Your task to perform on an android device: open app "Google Drive" Image 0: 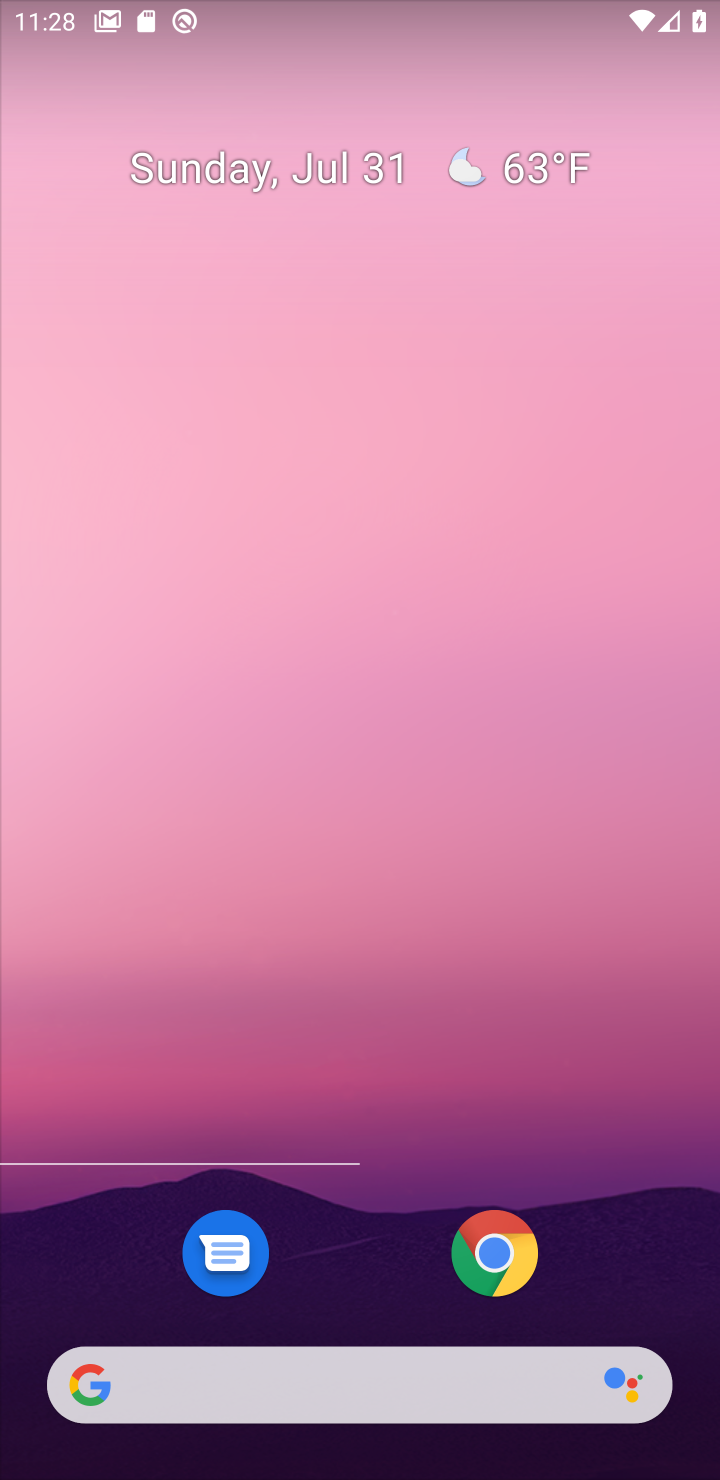
Step 0: press home button
Your task to perform on an android device: open app "Google Drive" Image 1: 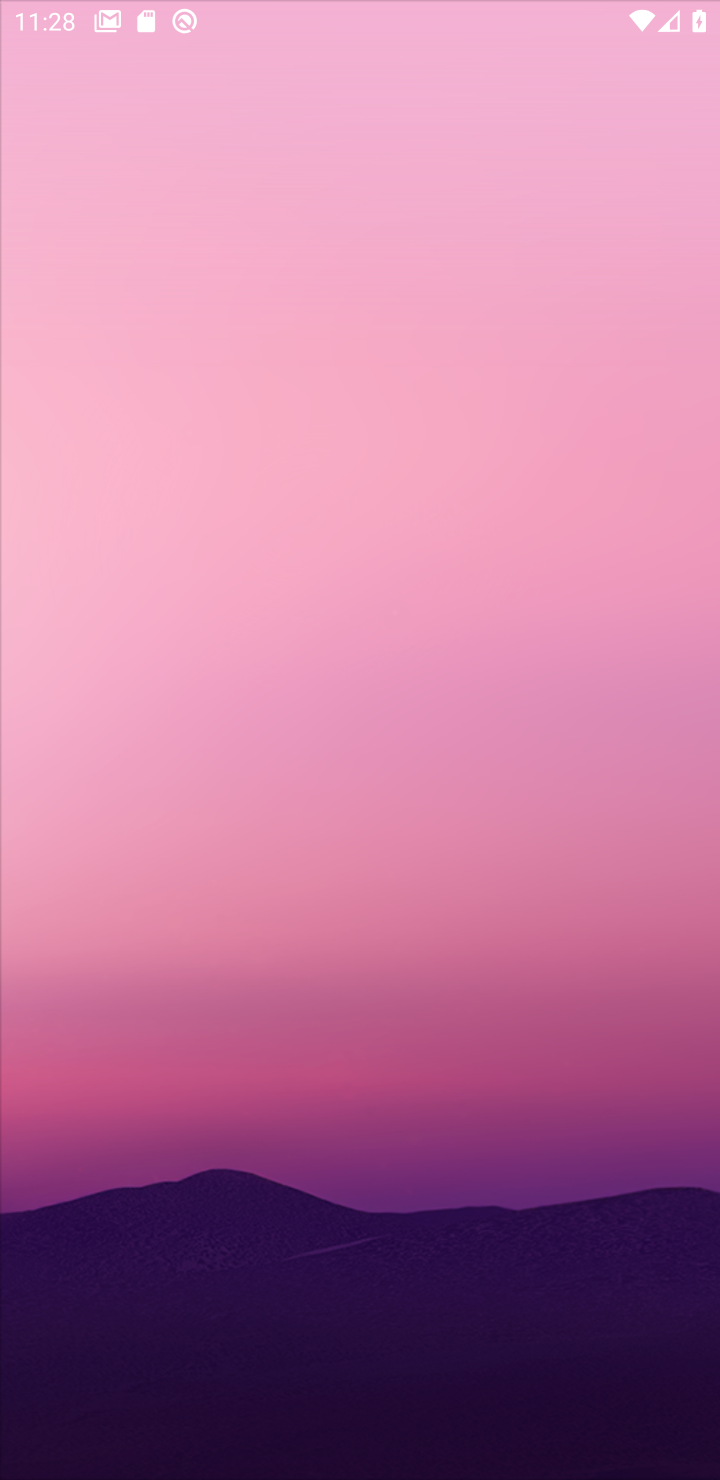
Step 1: drag from (386, 1161) to (474, 6)
Your task to perform on an android device: open app "Google Drive" Image 2: 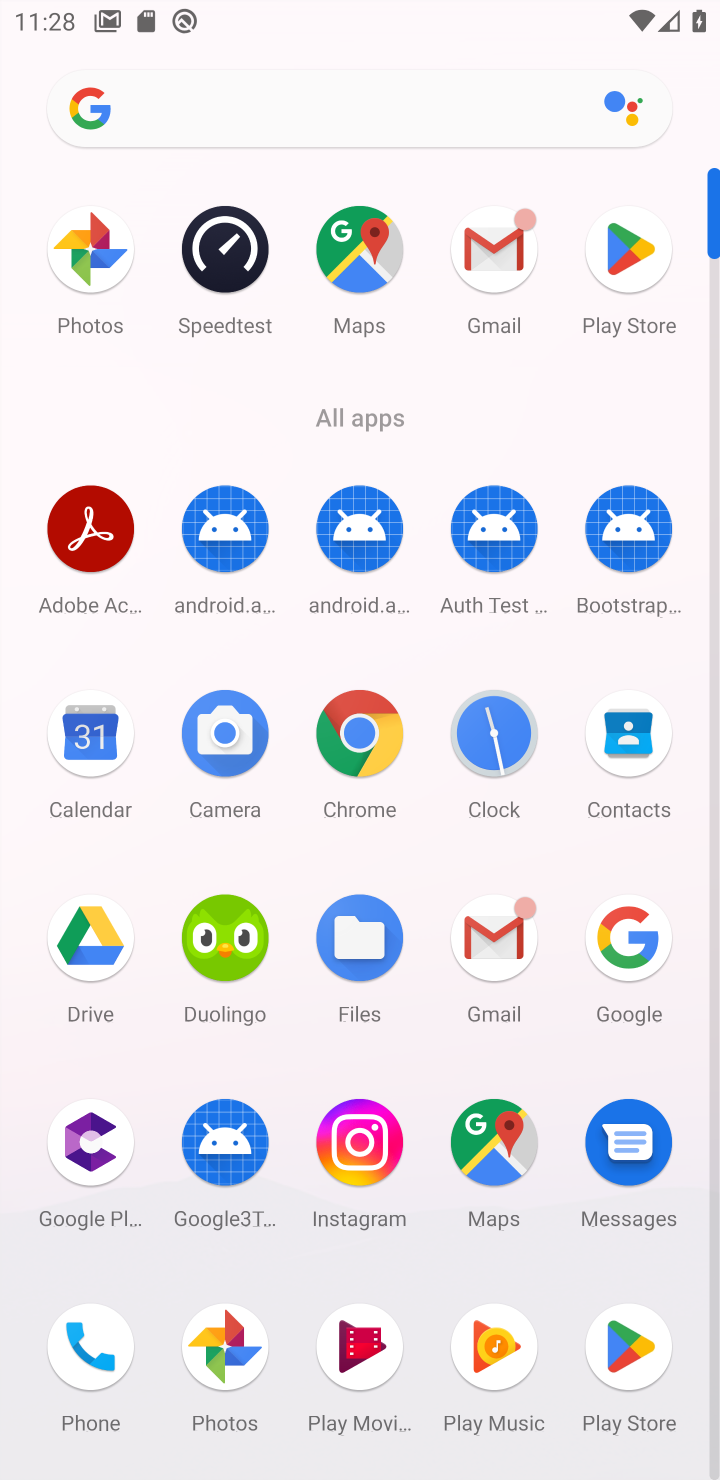
Step 2: click (638, 1340)
Your task to perform on an android device: open app "Google Drive" Image 3: 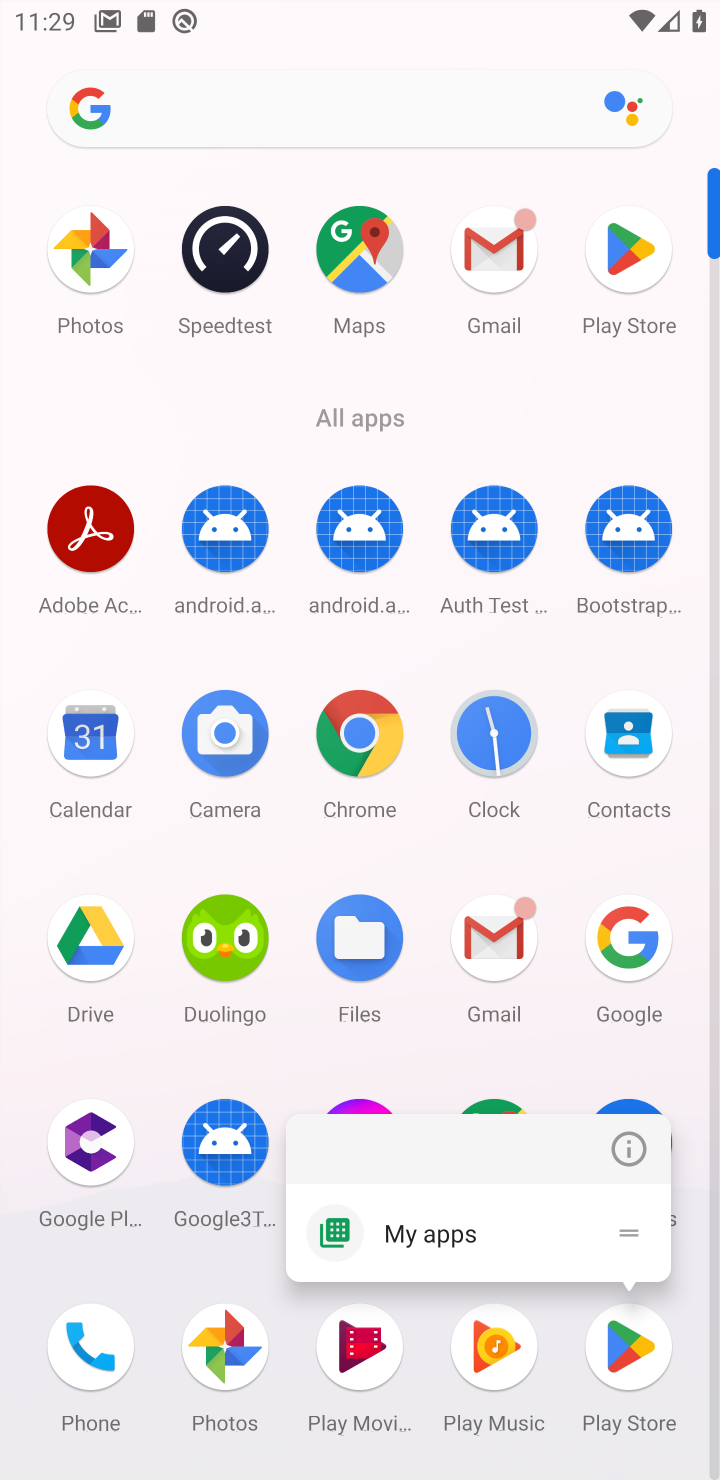
Step 3: click (646, 1326)
Your task to perform on an android device: open app "Google Drive" Image 4: 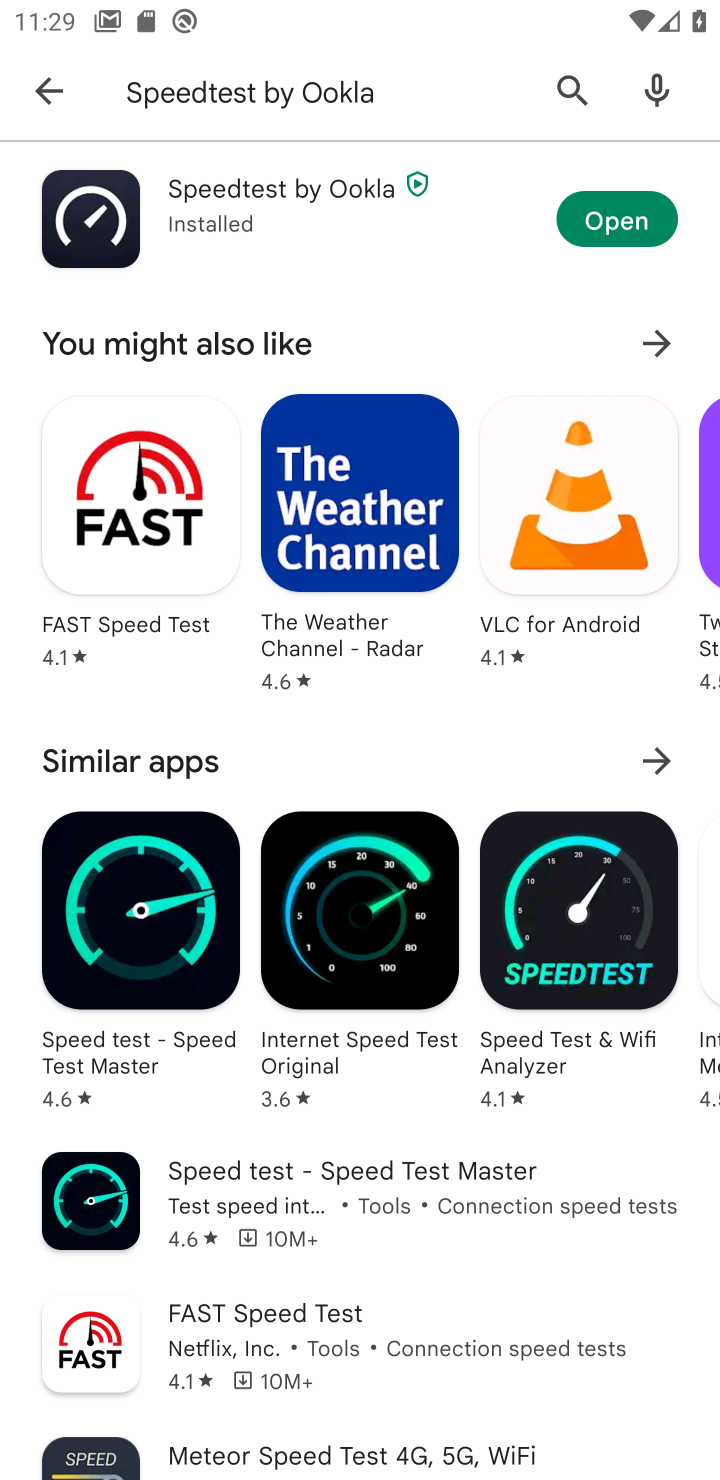
Step 4: click (358, 85)
Your task to perform on an android device: open app "Google Drive" Image 5: 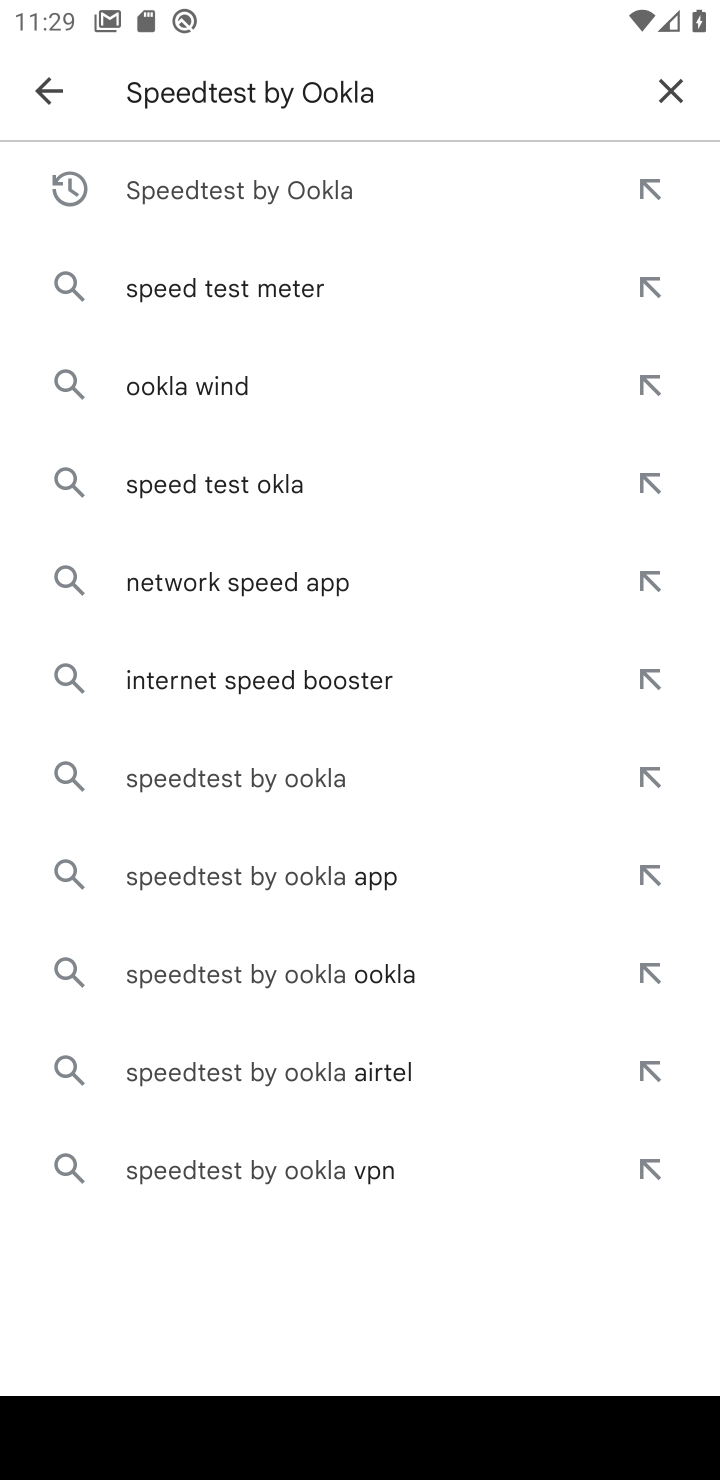
Step 5: click (689, 97)
Your task to perform on an android device: open app "Google Drive" Image 6: 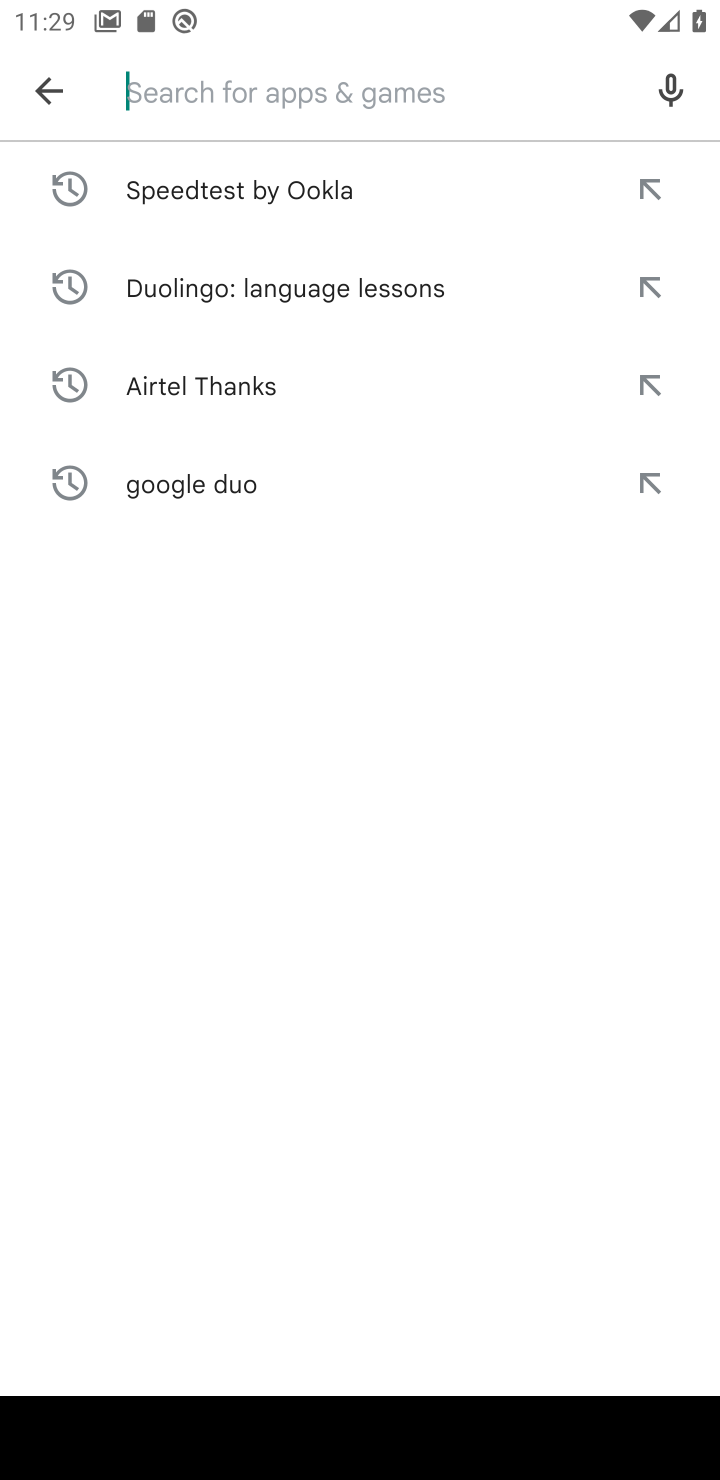
Step 6: type "Google Drive"
Your task to perform on an android device: open app "Google Drive" Image 7: 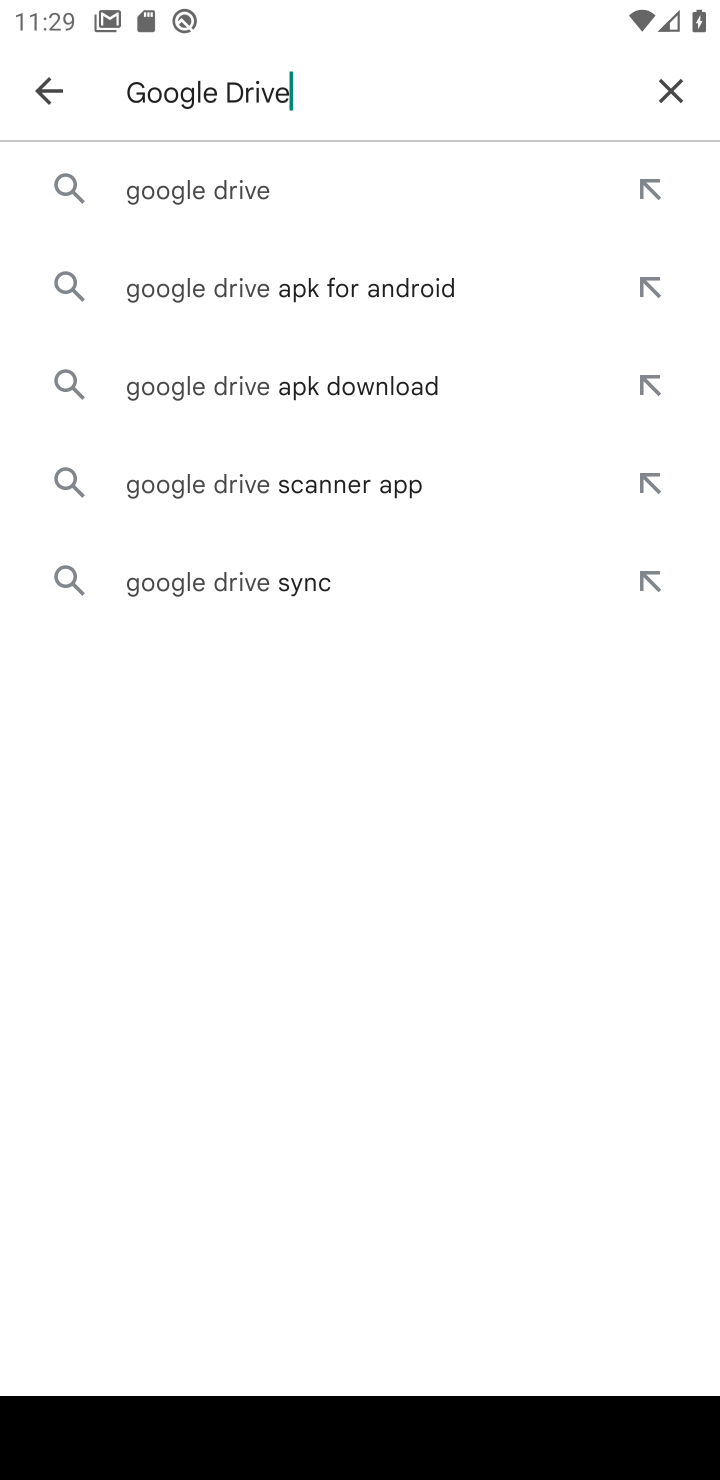
Step 7: press enter
Your task to perform on an android device: open app "Google Drive" Image 8: 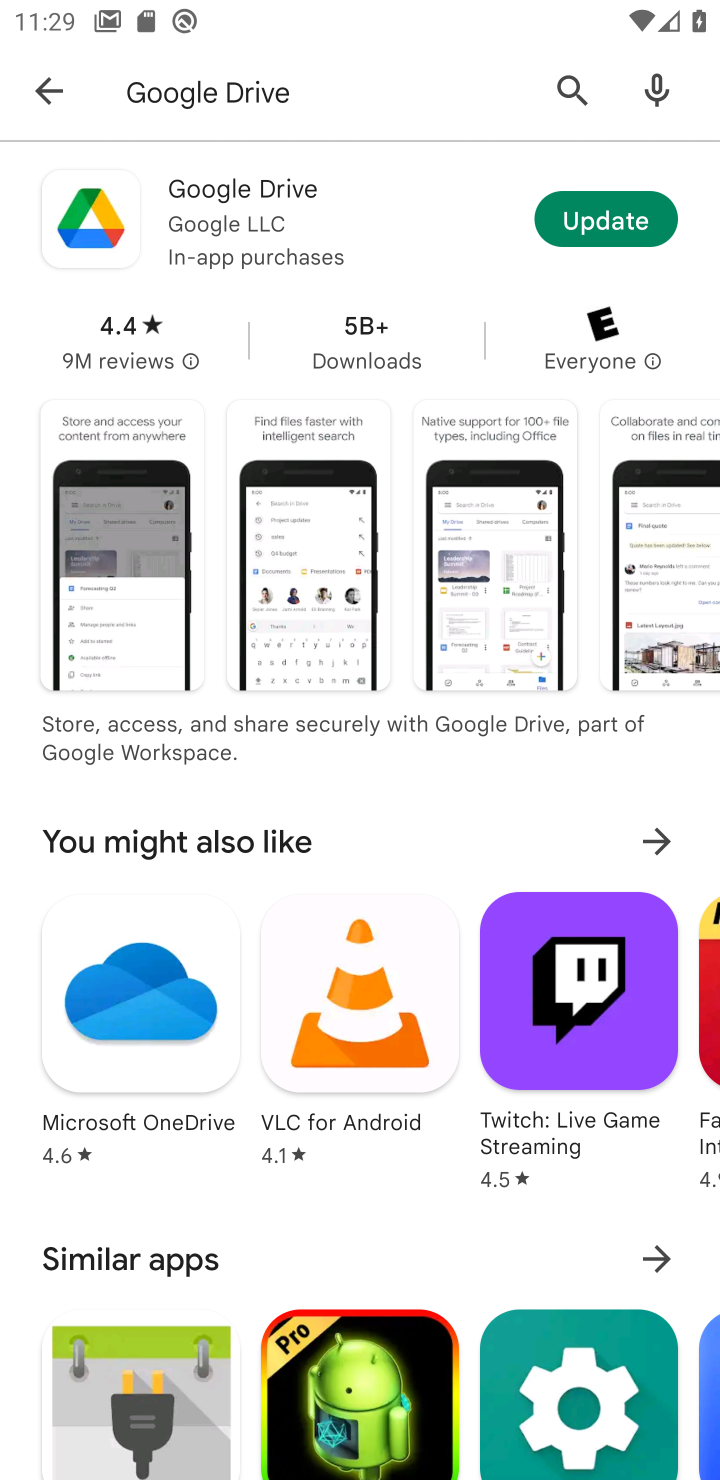
Step 8: click (280, 237)
Your task to perform on an android device: open app "Google Drive" Image 9: 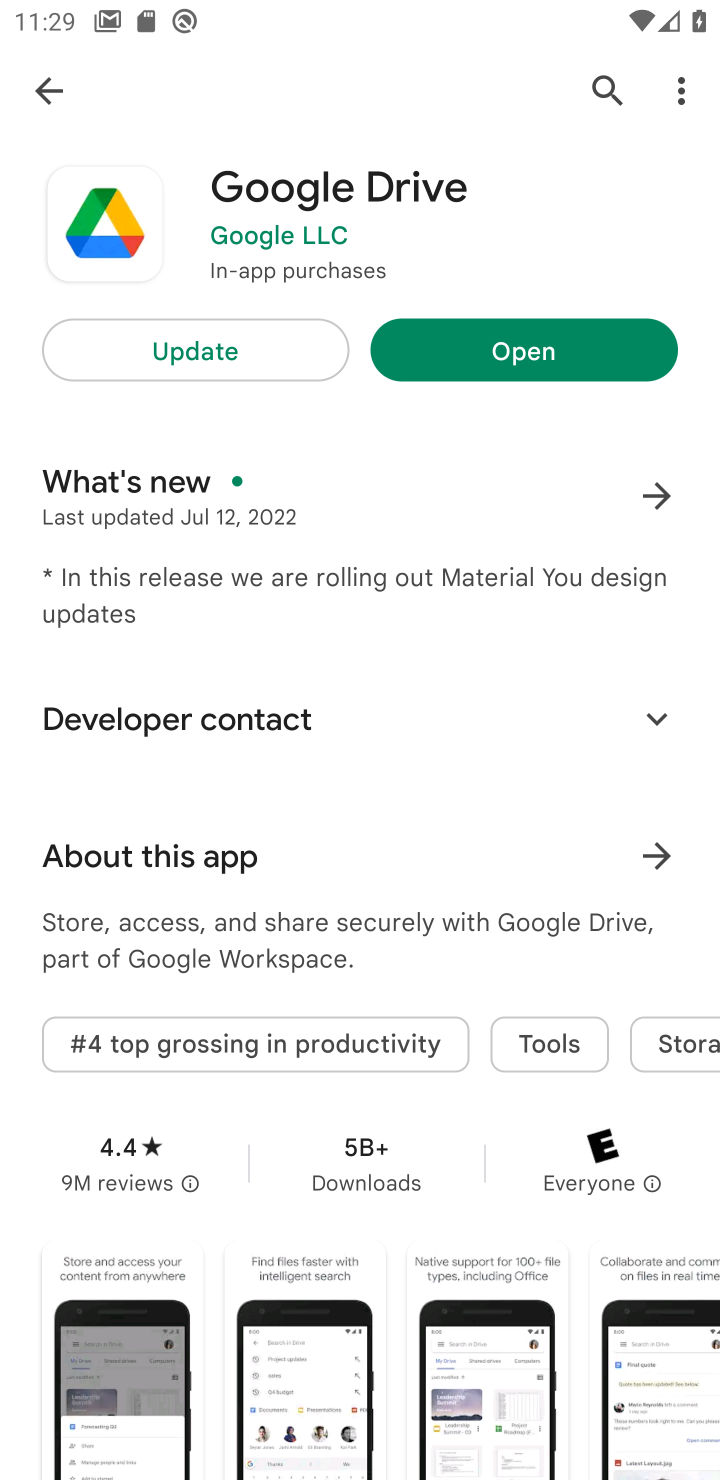
Step 9: click (589, 347)
Your task to perform on an android device: open app "Google Drive" Image 10: 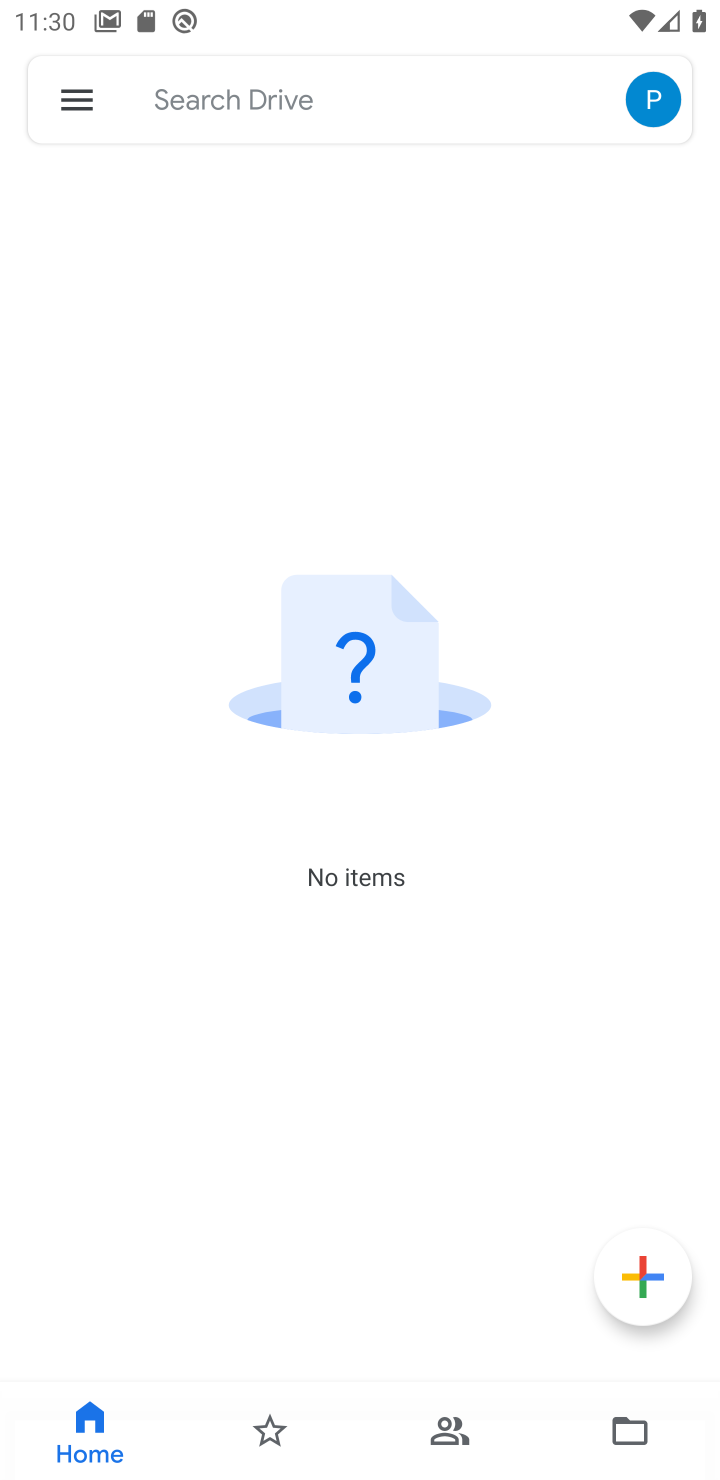
Step 10: task complete